Your task to perform on an android device: Open calendar and show me the third week of next month Image 0: 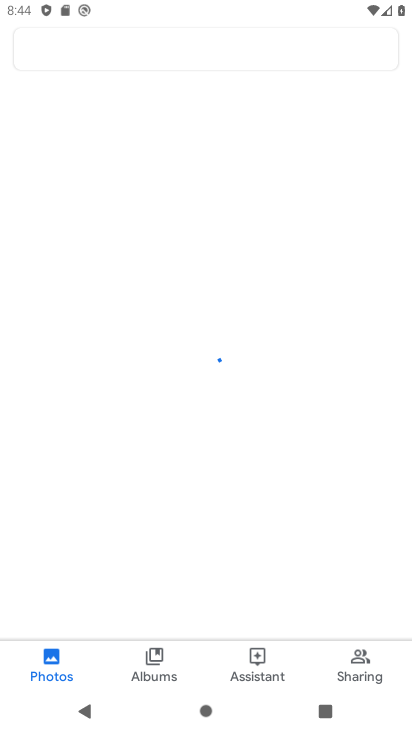
Step 0: press home button
Your task to perform on an android device: Open calendar and show me the third week of next month Image 1: 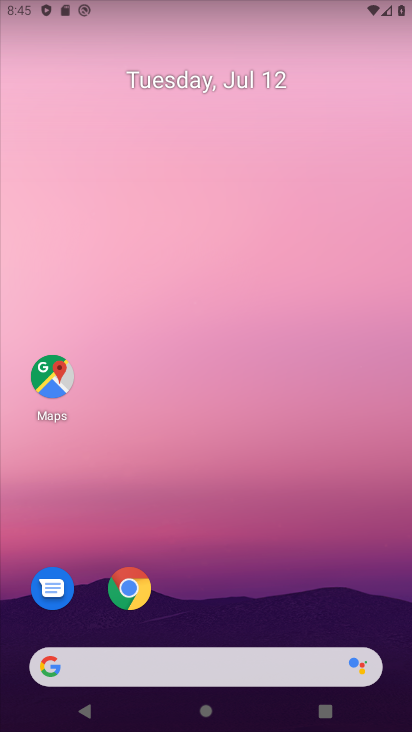
Step 1: drag from (255, 533) to (174, 92)
Your task to perform on an android device: Open calendar and show me the third week of next month Image 2: 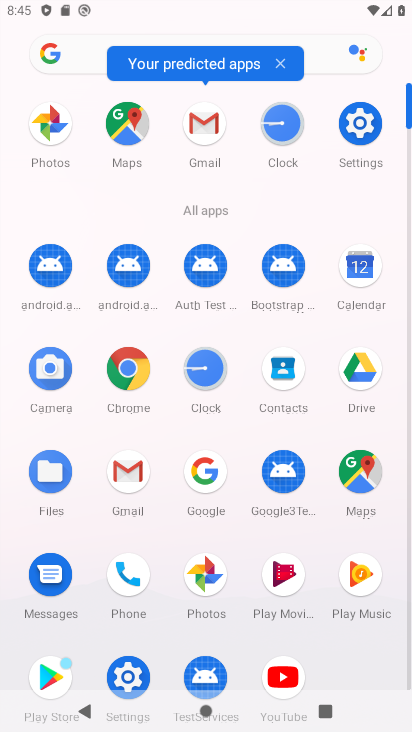
Step 2: click (359, 276)
Your task to perform on an android device: Open calendar and show me the third week of next month Image 3: 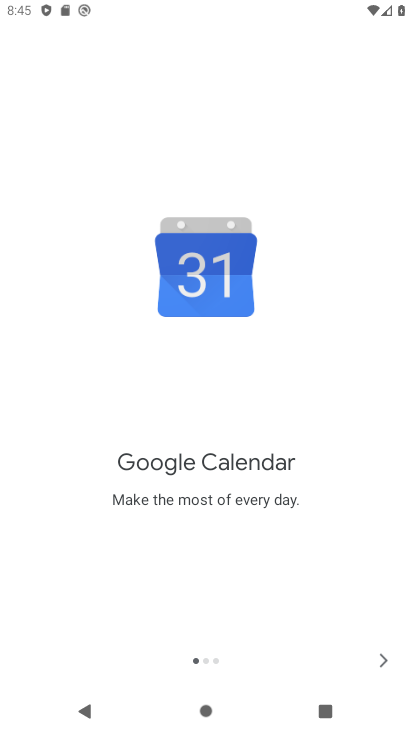
Step 3: click (380, 662)
Your task to perform on an android device: Open calendar and show me the third week of next month Image 4: 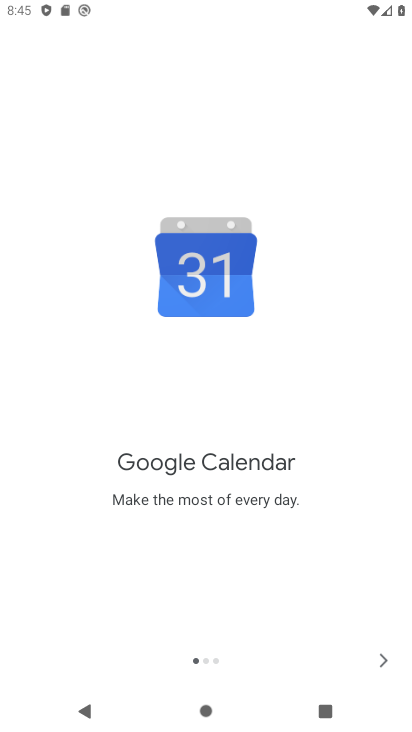
Step 4: click (380, 662)
Your task to perform on an android device: Open calendar and show me the third week of next month Image 5: 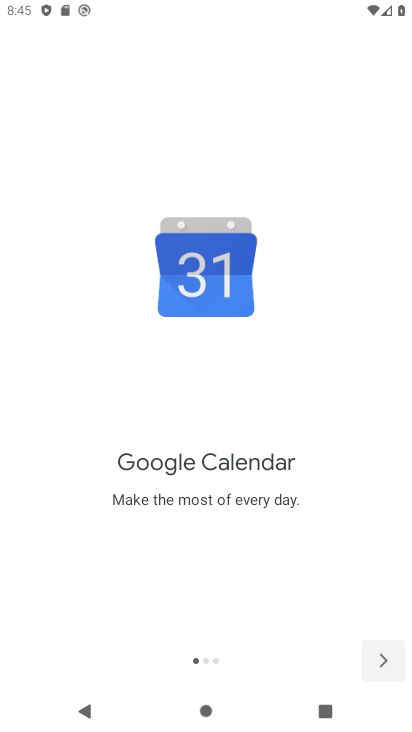
Step 5: click (380, 662)
Your task to perform on an android device: Open calendar and show me the third week of next month Image 6: 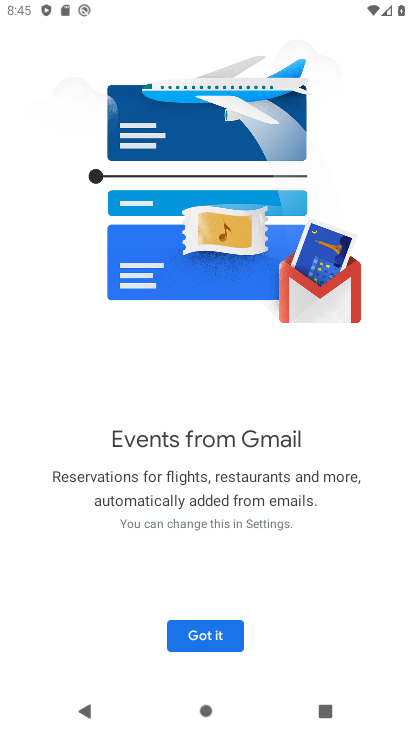
Step 6: click (229, 638)
Your task to perform on an android device: Open calendar and show me the third week of next month Image 7: 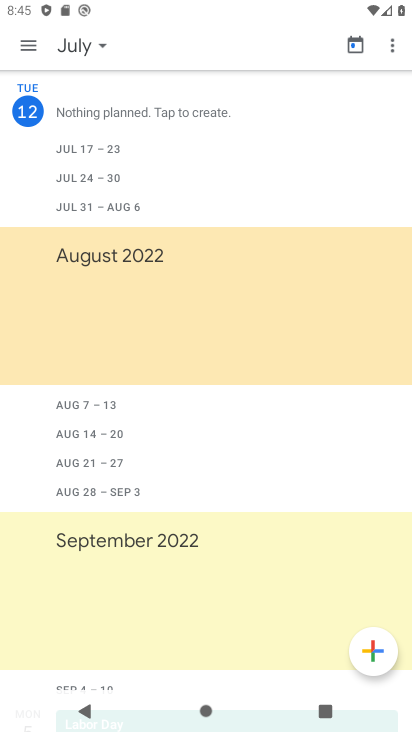
Step 7: click (31, 43)
Your task to perform on an android device: Open calendar and show me the third week of next month Image 8: 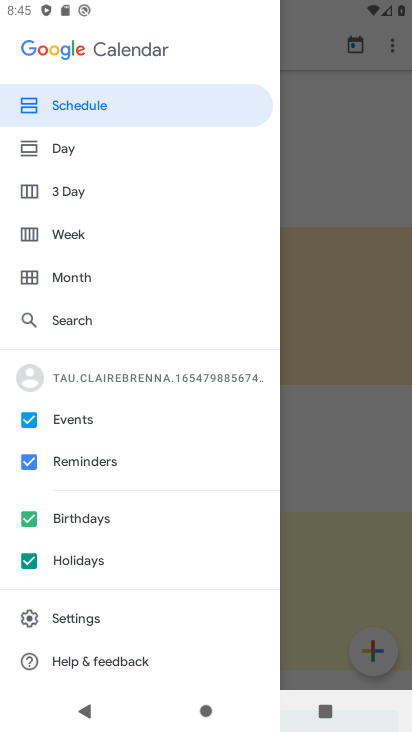
Step 8: click (62, 232)
Your task to perform on an android device: Open calendar and show me the third week of next month Image 9: 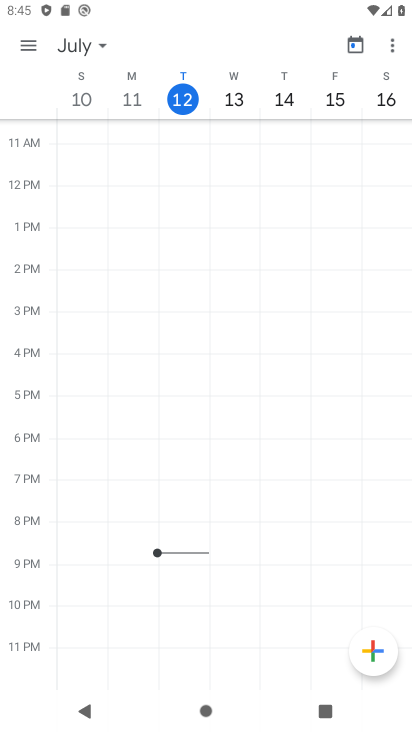
Step 9: click (101, 45)
Your task to perform on an android device: Open calendar and show me the third week of next month Image 10: 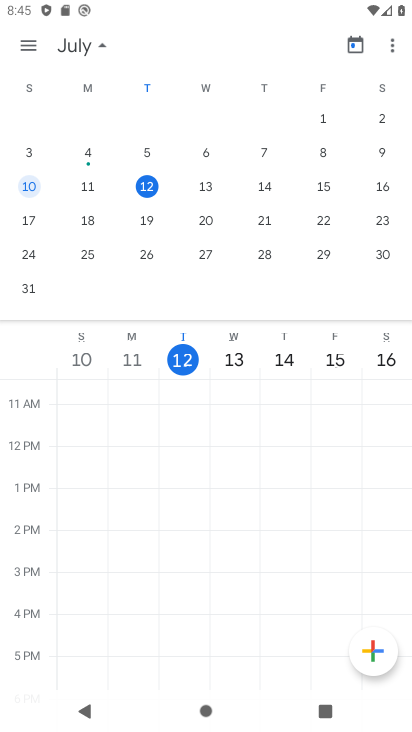
Step 10: drag from (376, 187) to (42, 190)
Your task to perform on an android device: Open calendar and show me the third week of next month Image 11: 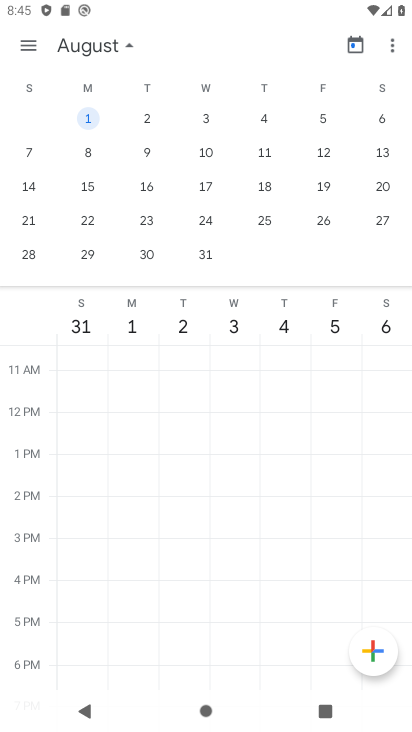
Step 11: click (149, 188)
Your task to perform on an android device: Open calendar and show me the third week of next month Image 12: 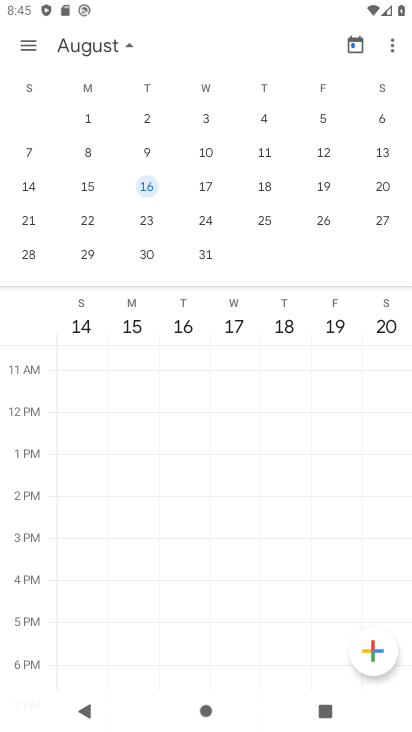
Step 12: task complete